Your task to perform on an android device: set the timer Image 0: 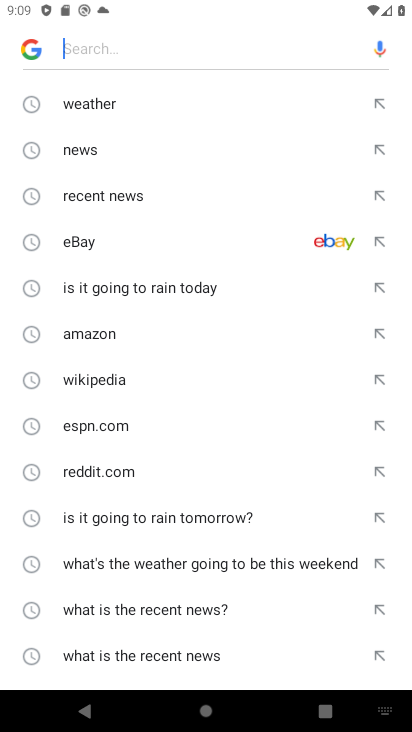
Step 0: press home button
Your task to perform on an android device: set the timer Image 1: 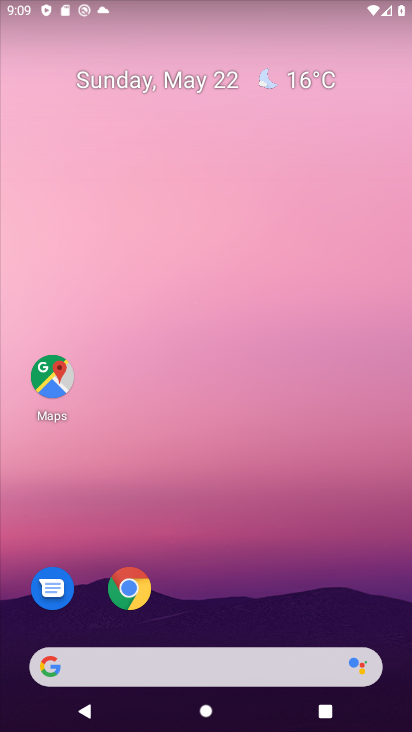
Step 1: drag from (211, 601) to (217, 211)
Your task to perform on an android device: set the timer Image 2: 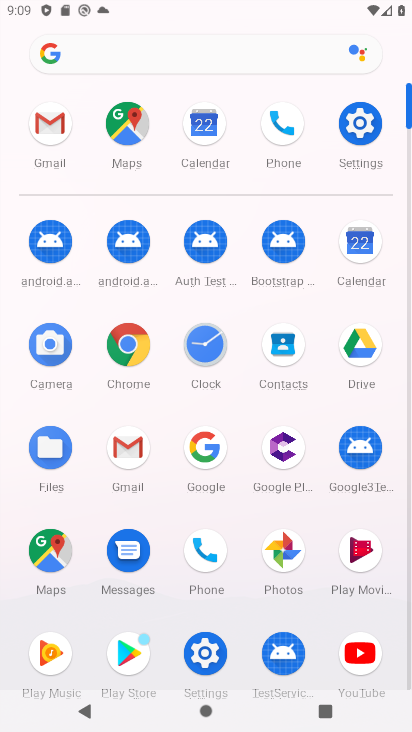
Step 2: click (216, 373)
Your task to perform on an android device: set the timer Image 3: 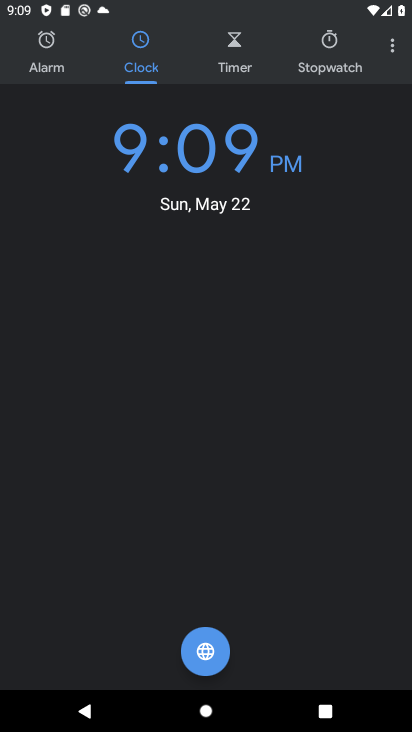
Step 3: click (230, 34)
Your task to perform on an android device: set the timer Image 4: 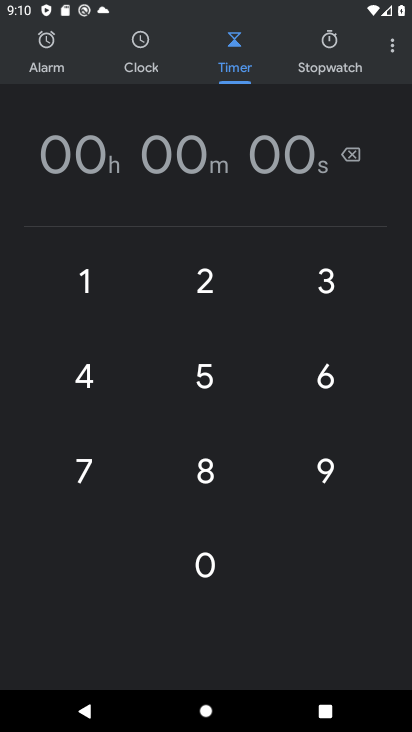
Step 4: click (275, 146)
Your task to perform on an android device: set the timer Image 5: 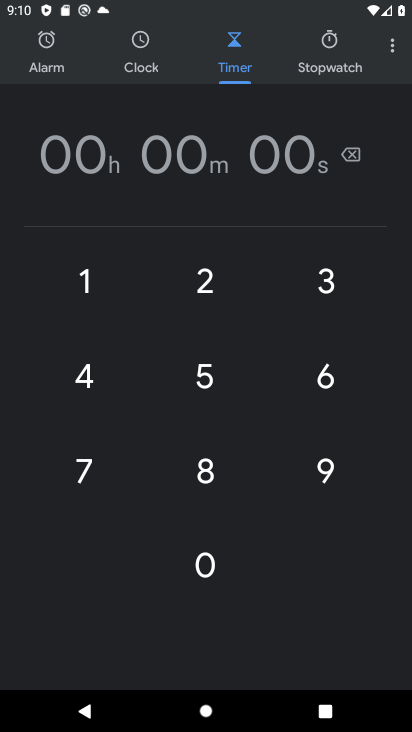
Step 5: type "21"
Your task to perform on an android device: set the timer Image 6: 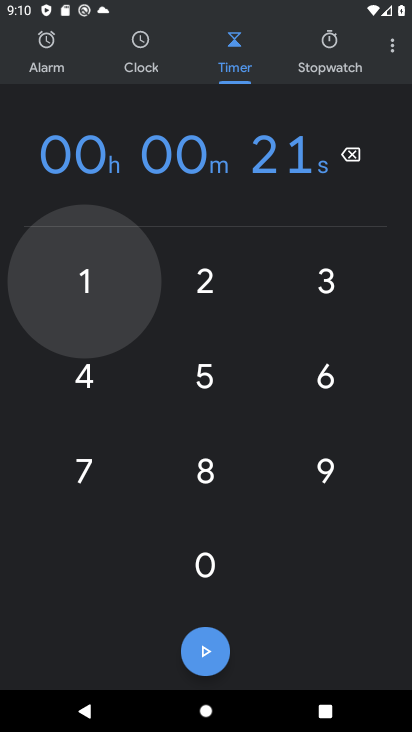
Step 6: click (206, 629)
Your task to perform on an android device: set the timer Image 7: 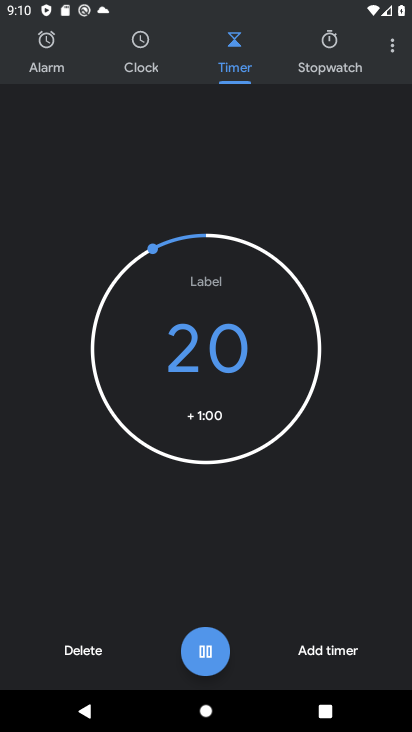
Step 7: task complete